Your task to perform on an android device: turn off data saver in the chrome app Image 0: 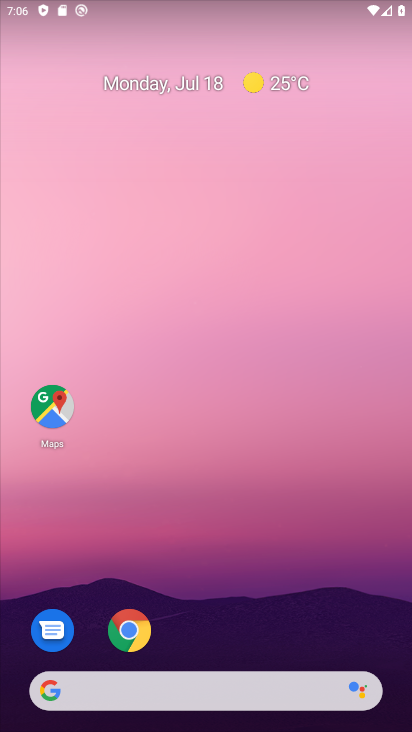
Step 0: click (127, 628)
Your task to perform on an android device: turn off data saver in the chrome app Image 1: 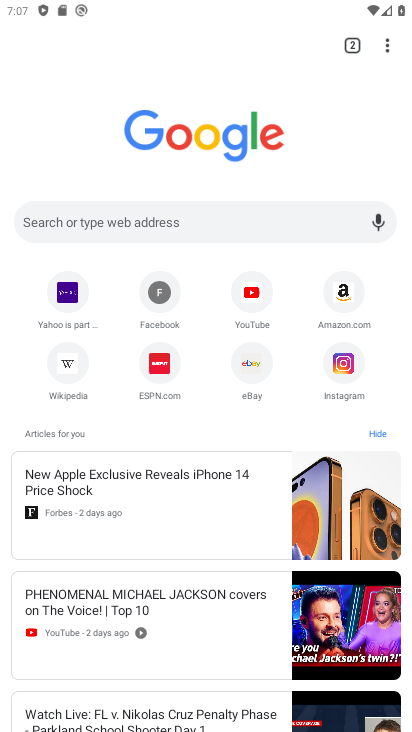
Step 1: click (388, 48)
Your task to perform on an android device: turn off data saver in the chrome app Image 2: 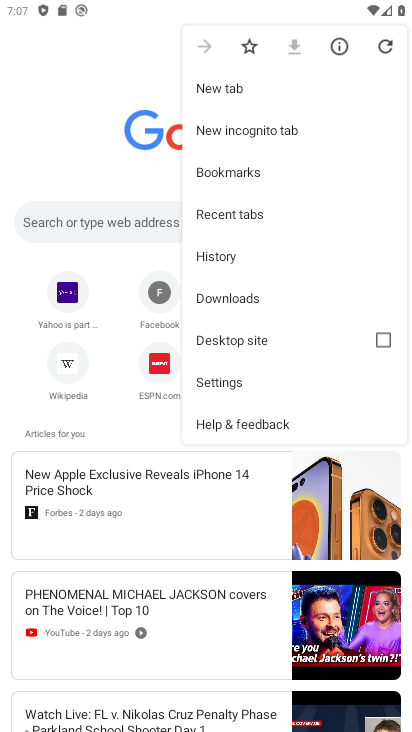
Step 2: click (213, 378)
Your task to perform on an android device: turn off data saver in the chrome app Image 3: 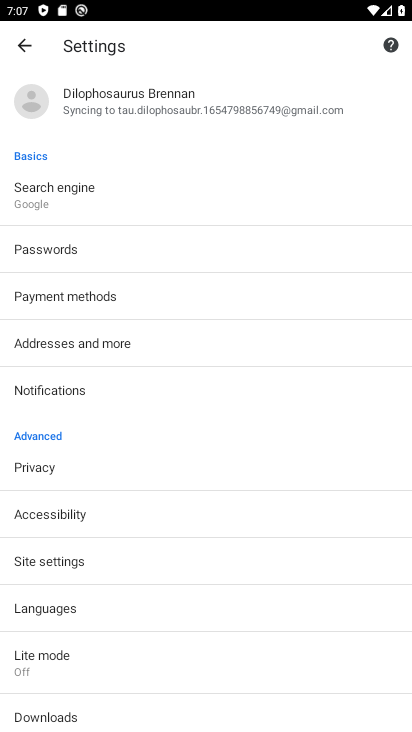
Step 3: click (73, 647)
Your task to perform on an android device: turn off data saver in the chrome app Image 4: 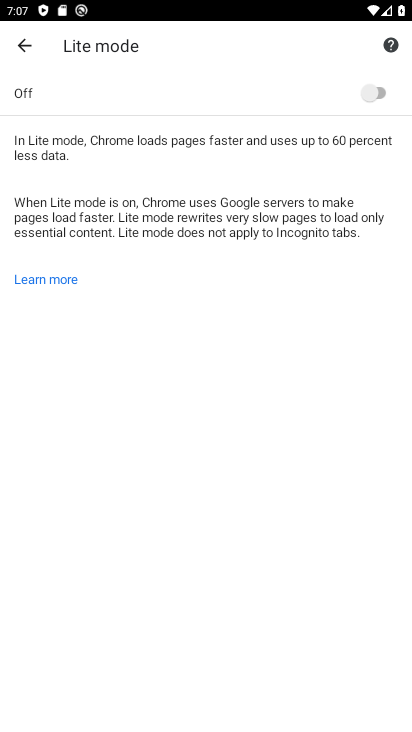
Step 4: click (386, 88)
Your task to perform on an android device: turn off data saver in the chrome app Image 5: 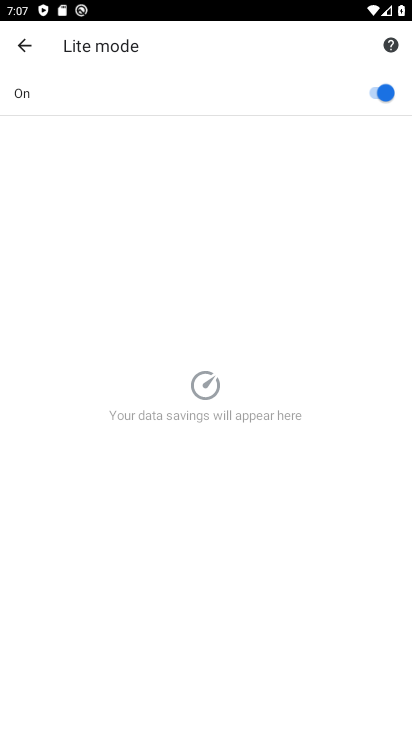
Step 5: click (380, 93)
Your task to perform on an android device: turn off data saver in the chrome app Image 6: 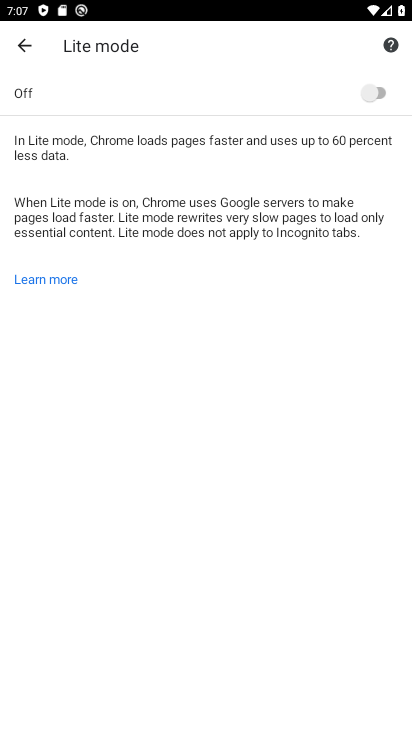
Step 6: task complete